Your task to perform on an android device: turn off data saver in the chrome app Image 0: 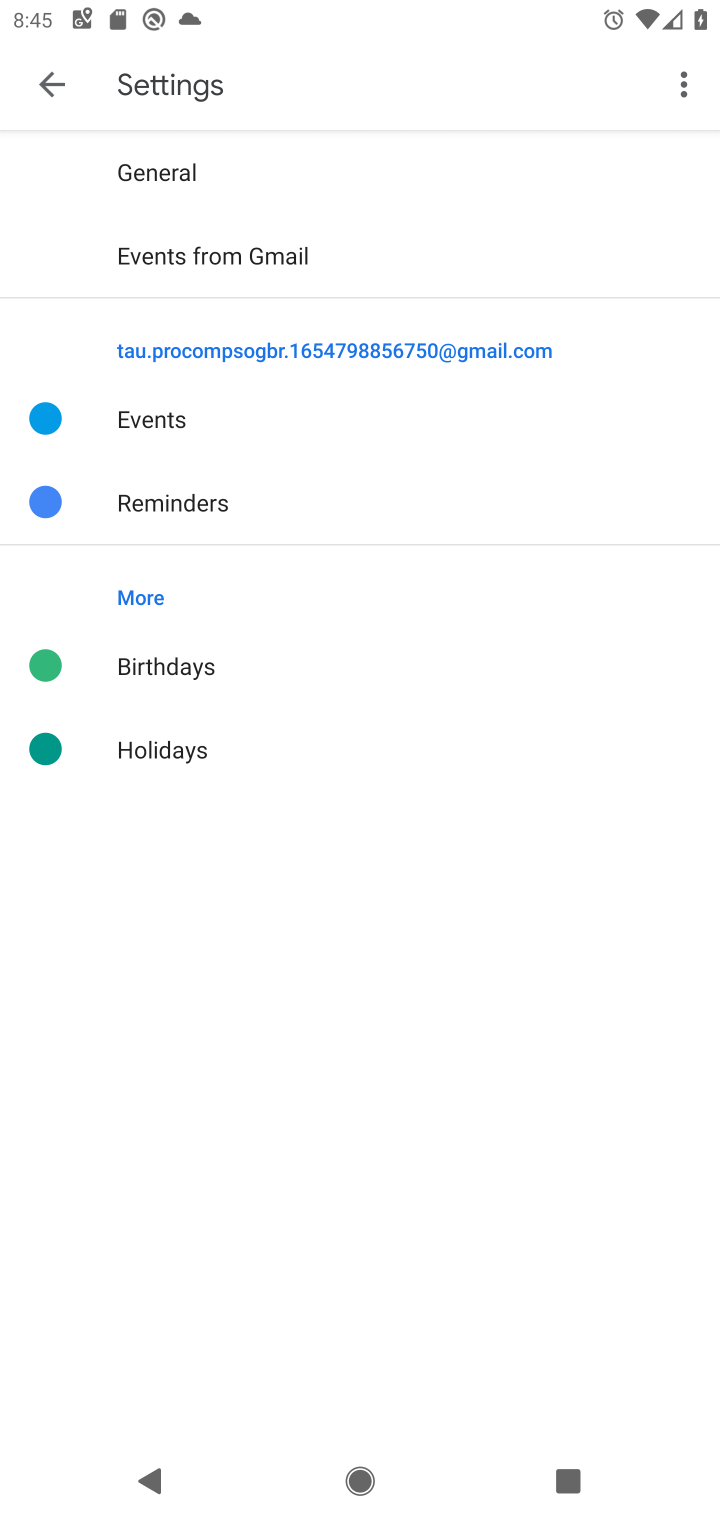
Step 0: press home button
Your task to perform on an android device: turn off data saver in the chrome app Image 1: 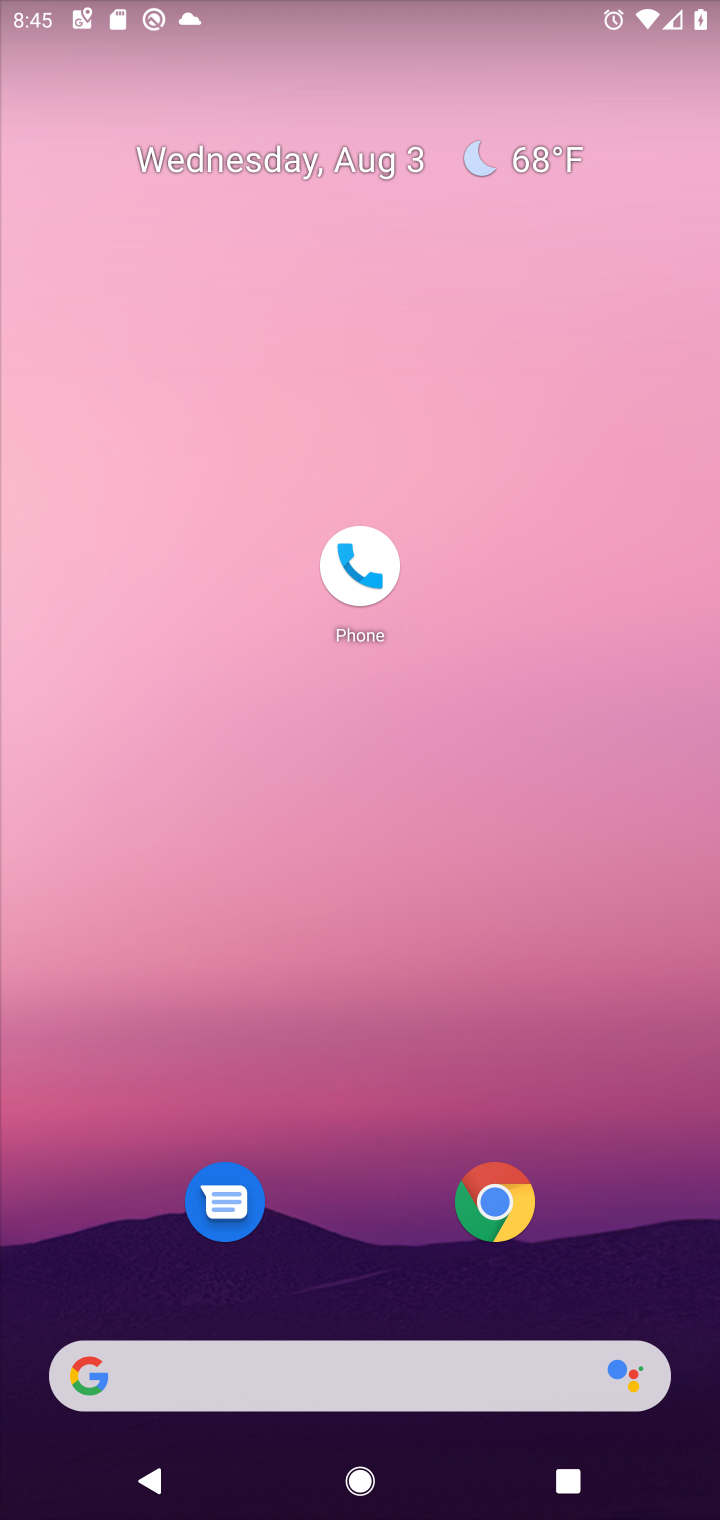
Step 1: click (491, 1201)
Your task to perform on an android device: turn off data saver in the chrome app Image 2: 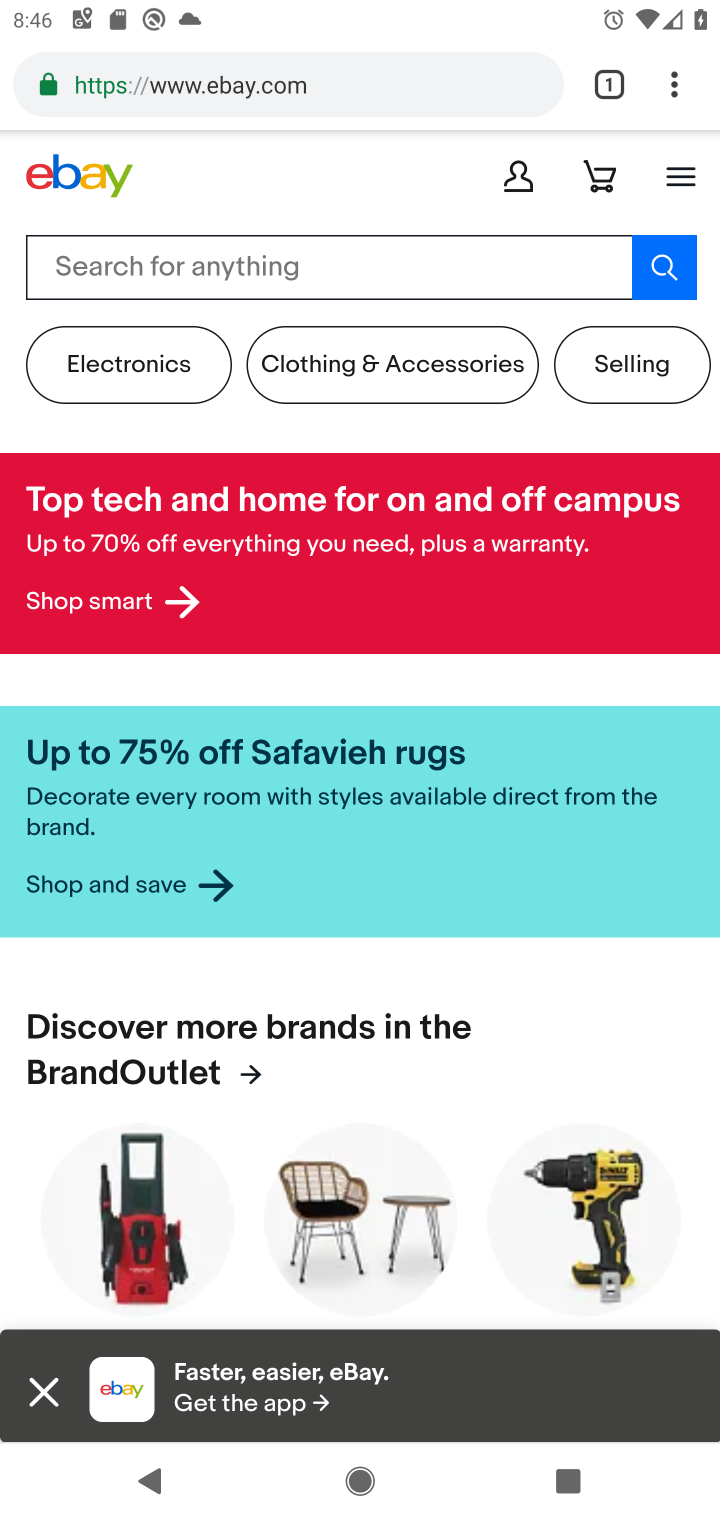
Step 2: click (677, 85)
Your task to perform on an android device: turn off data saver in the chrome app Image 3: 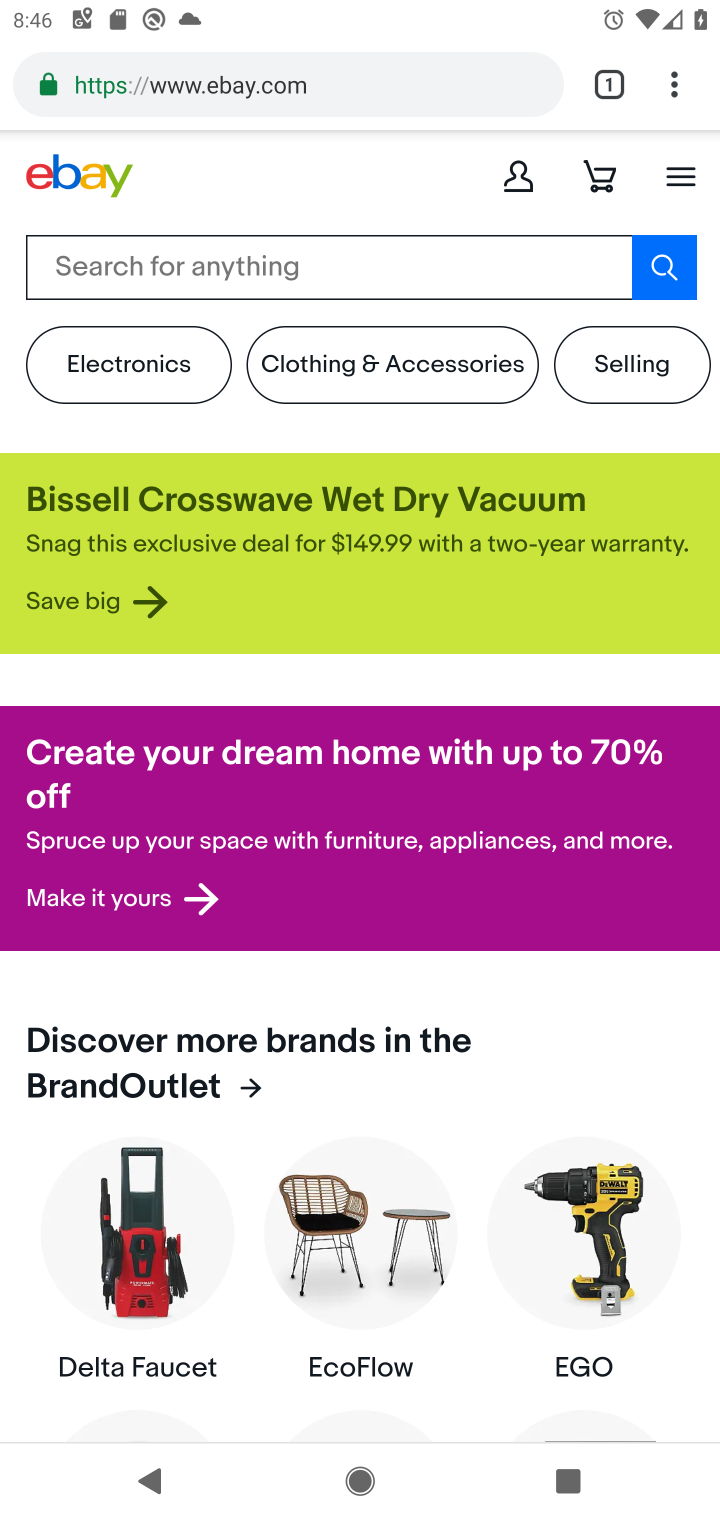
Step 3: click (675, 86)
Your task to perform on an android device: turn off data saver in the chrome app Image 4: 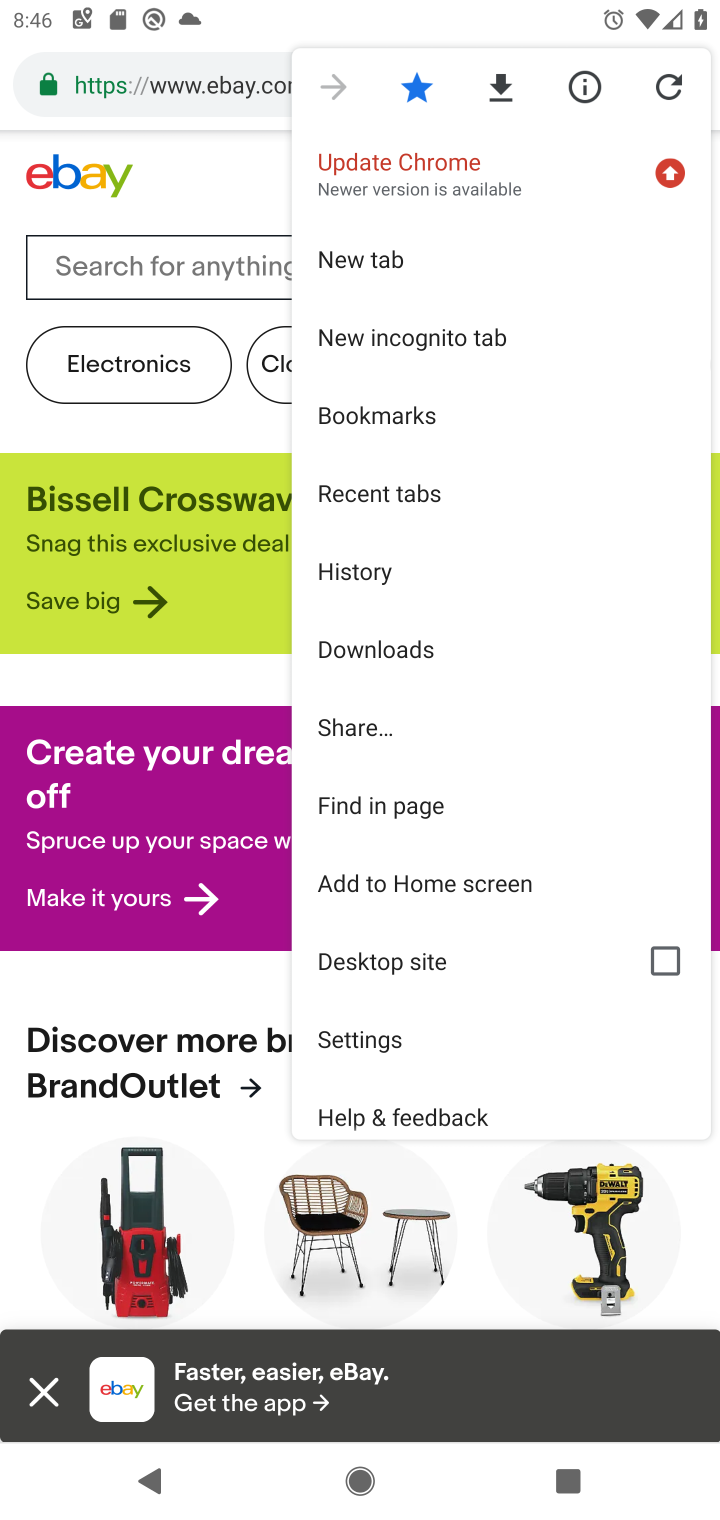
Step 4: click (384, 1037)
Your task to perform on an android device: turn off data saver in the chrome app Image 5: 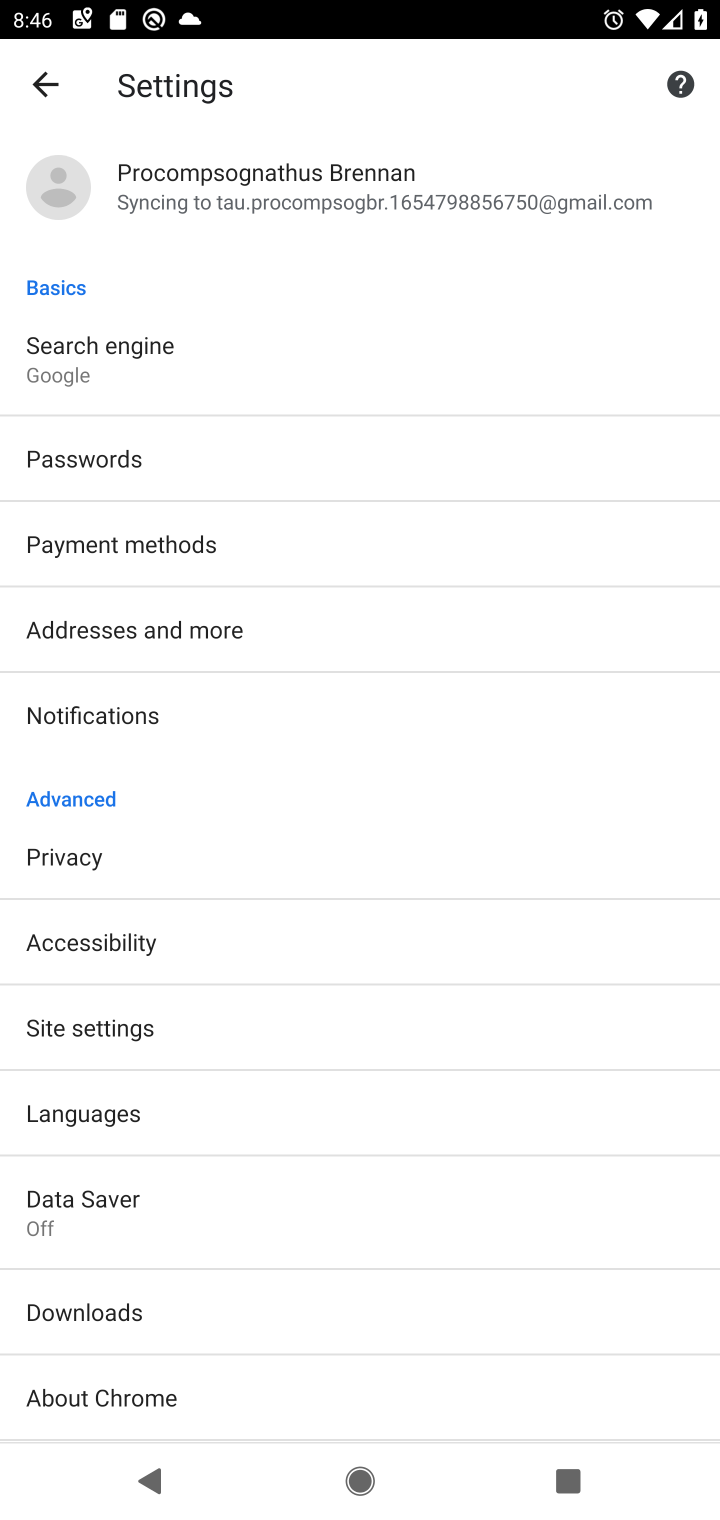
Step 5: click (135, 1205)
Your task to perform on an android device: turn off data saver in the chrome app Image 6: 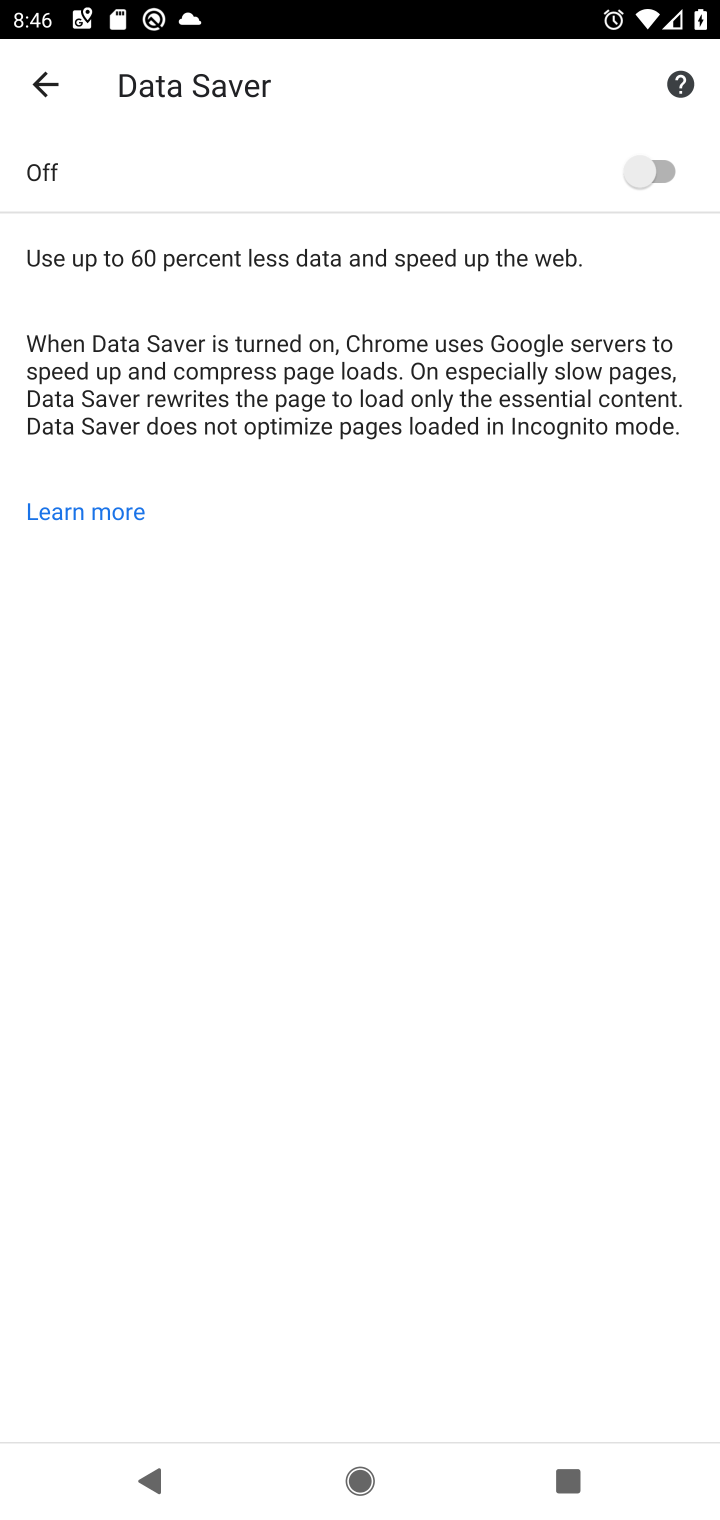
Step 6: task complete